Your task to perform on an android device: What's the news in Myanmar? Image 0: 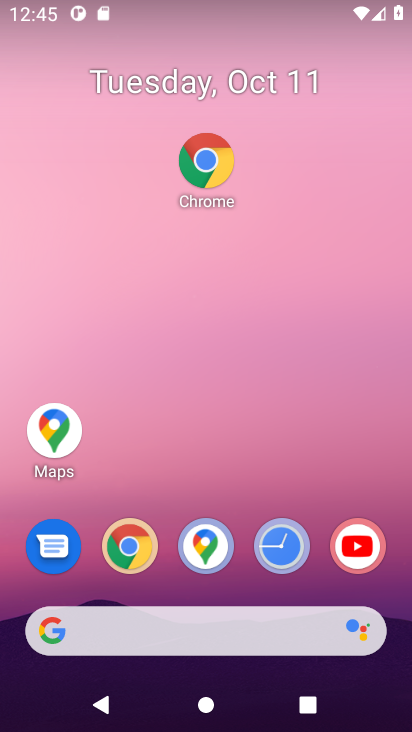
Step 0: click (220, 176)
Your task to perform on an android device: What's the news in Myanmar? Image 1: 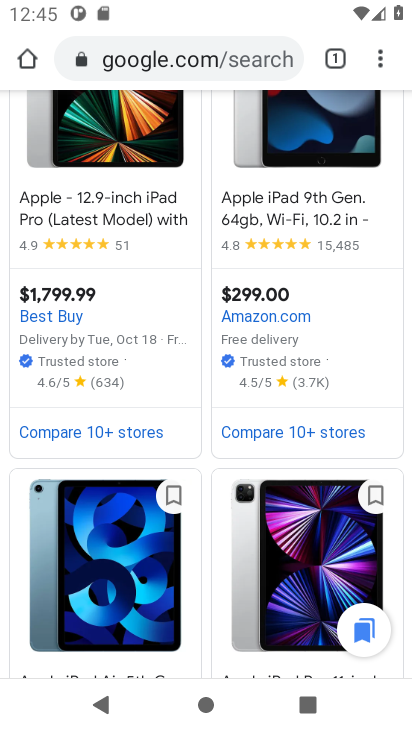
Step 1: click (209, 53)
Your task to perform on an android device: What's the news in Myanmar? Image 2: 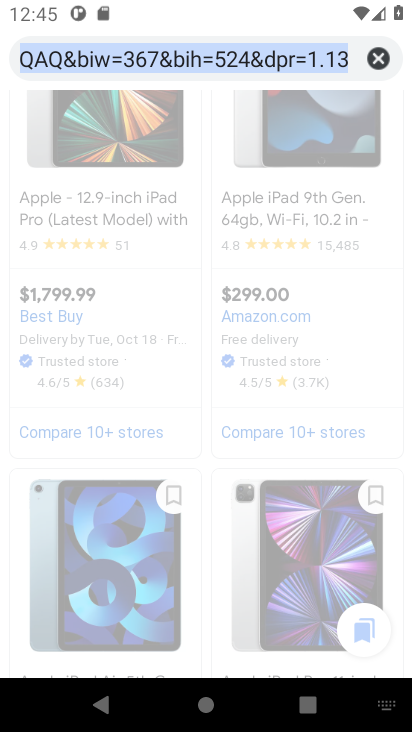
Step 2: type "news in Myanmar"
Your task to perform on an android device: What's the news in Myanmar? Image 3: 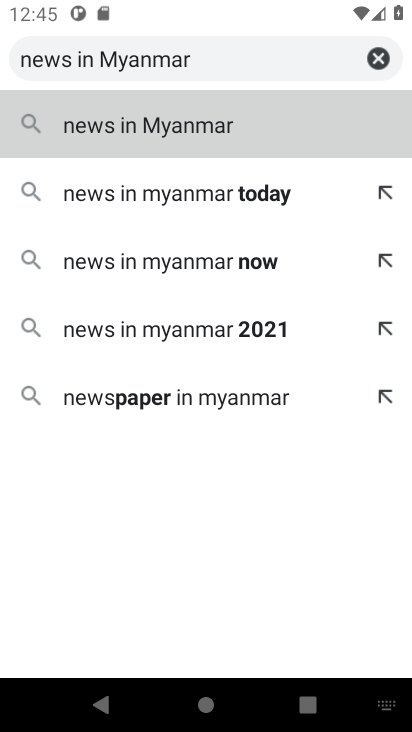
Step 3: press enter
Your task to perform on an android device: What's the news in Myanmar? Image 4: 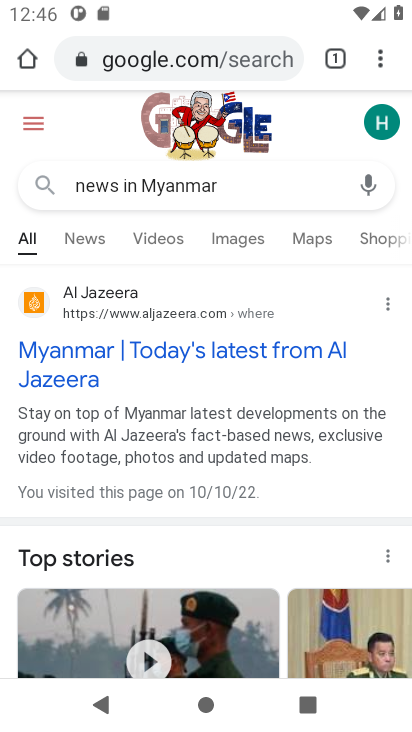
Step 4: click (89, 239)
Your task to perform on an android device: What's the news in Myanmar? Image 5: 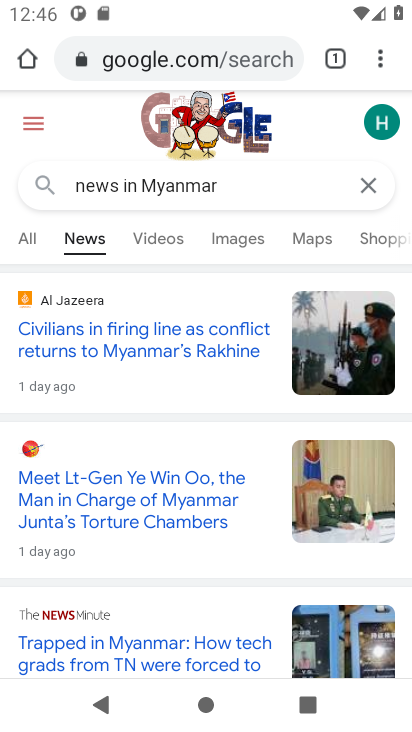
Step 5: task complete